Your task to perform on an android device: Open Chrome and go to settings Image 0: 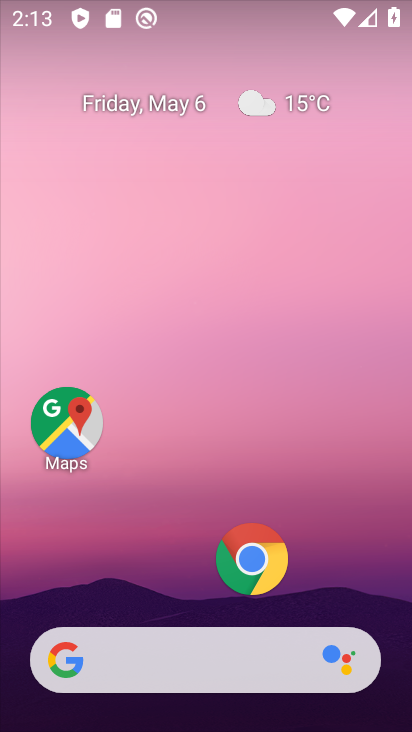
Step 0: click (247, 558)
Your task to perform on an android device: Open Chrome and go to settings Image 1: 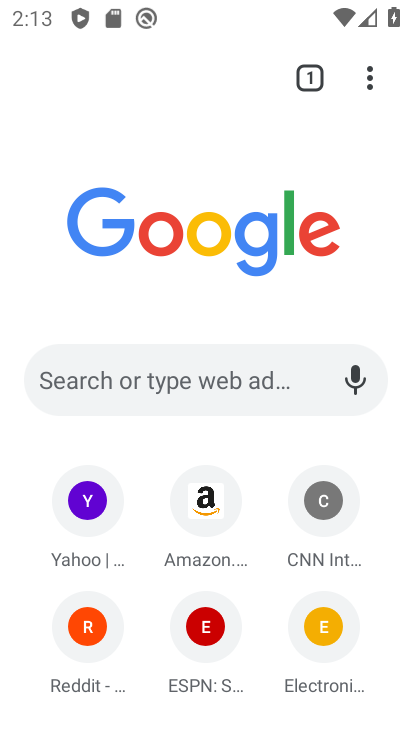
Step 1: click (368, 80)
Your task to perform on an android device: Open Chrome and go to settings Image 2: 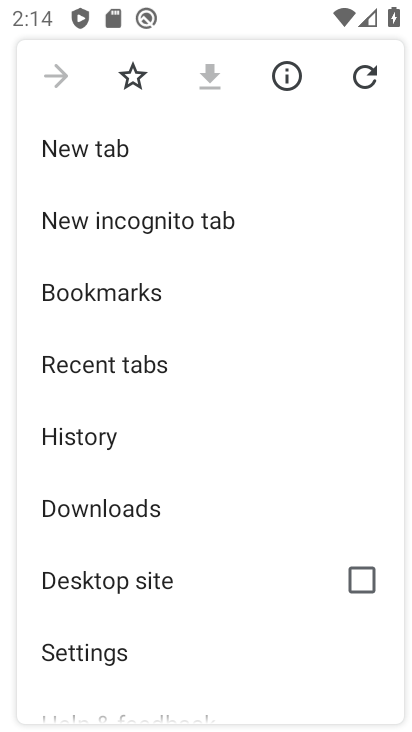
Step 2: click (138, 652)
Your task to perform on an android device: Open Chrome and go to settings Image 3: 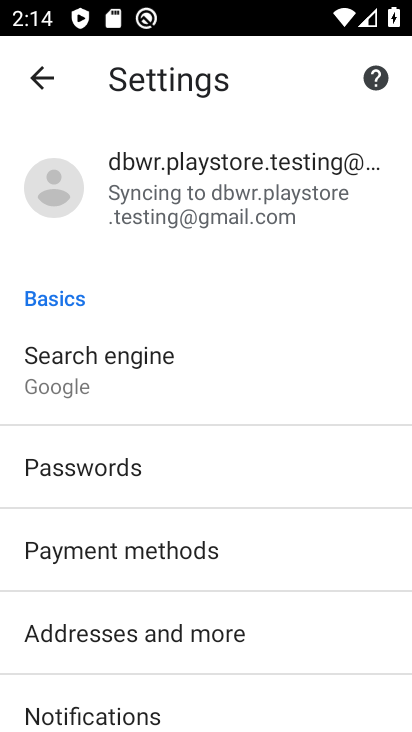
Step 3: task complete